Your task to perform on an android device: Go to wifi settings Image 0: 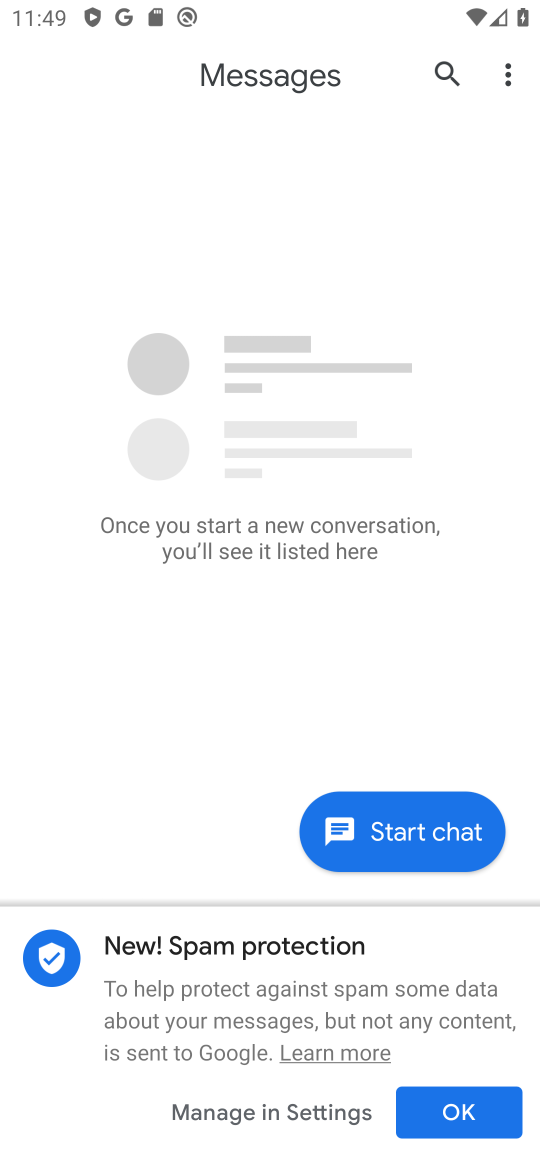
Step 0: press home button
Your task to perform on an android device: Go to wifi settings Image 1: 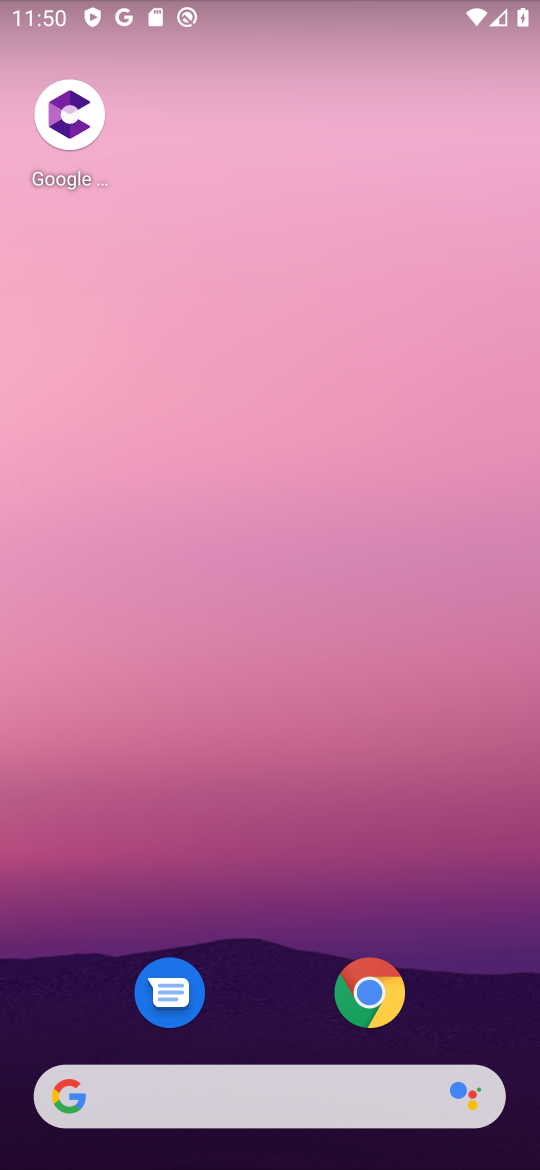
Step 1: drag from (282, 1014) to (187, 9)
Your task to perform on an android device: Go to wifi settings Image 2: 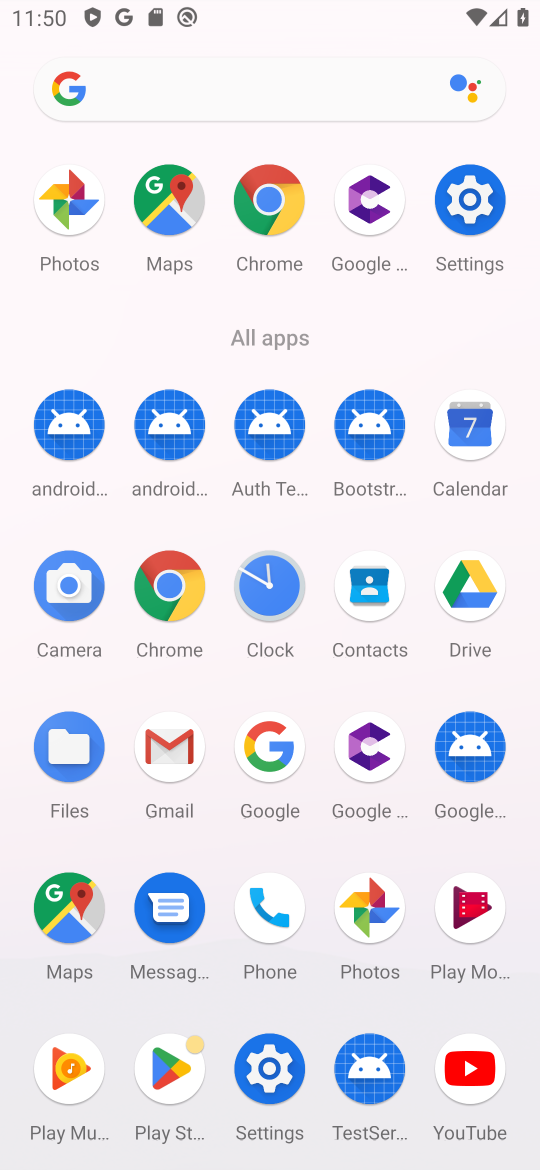
Step 2: click (481, 213)
Your task to perform on an android device: Go to wifi settings Image 3: 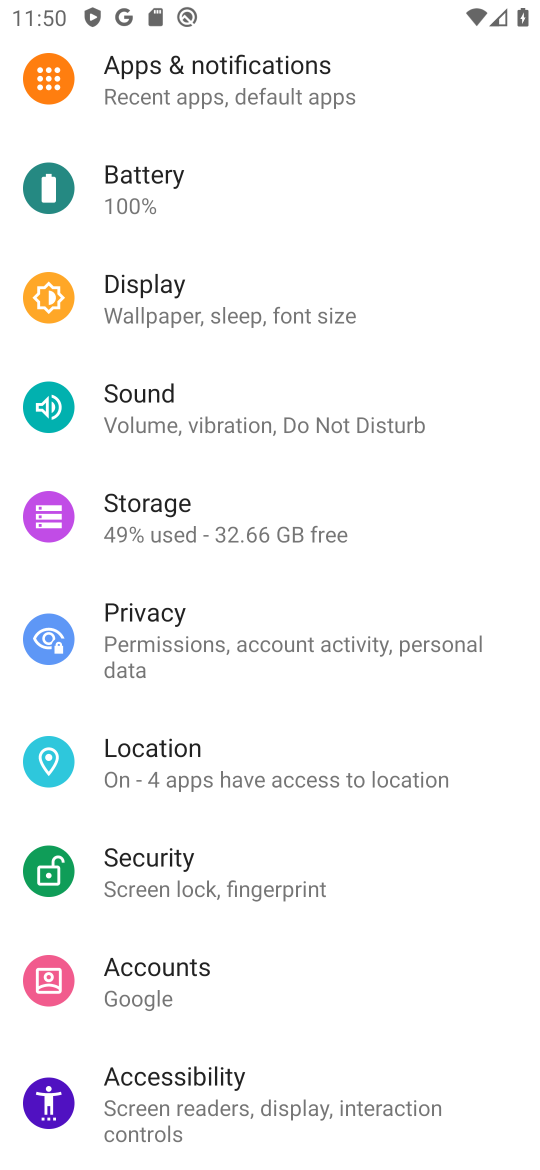
Step 3: drag from (272, 325) to (329, 900)
Your task to perform on an android device: Go to wifi settings Image 4: 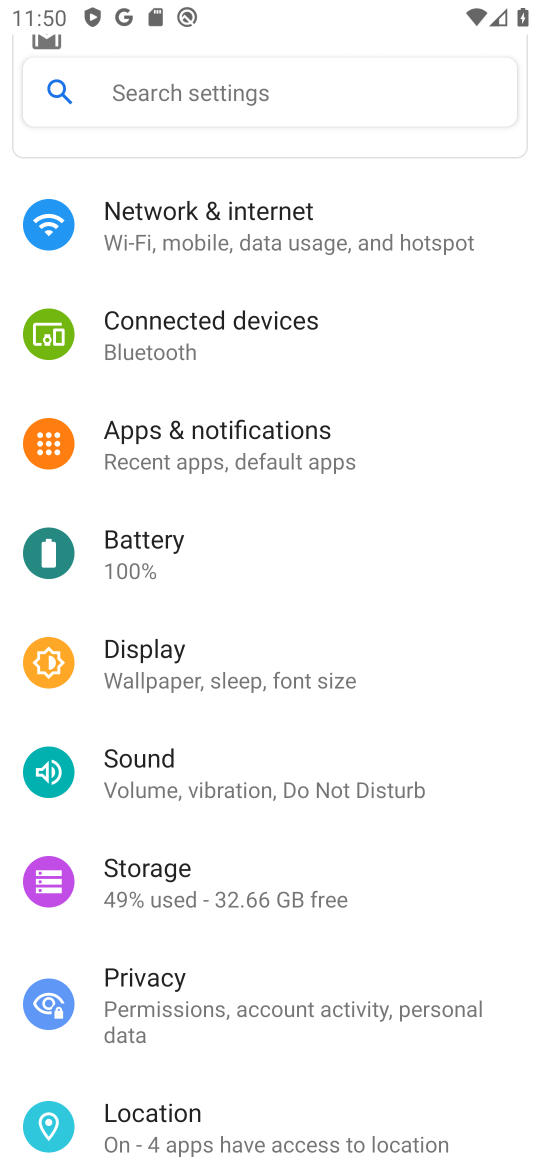
Step 4: drag from (193, 347) to (223, 913)
Your task to perform on an android device: Go to wifi settings Image 5: 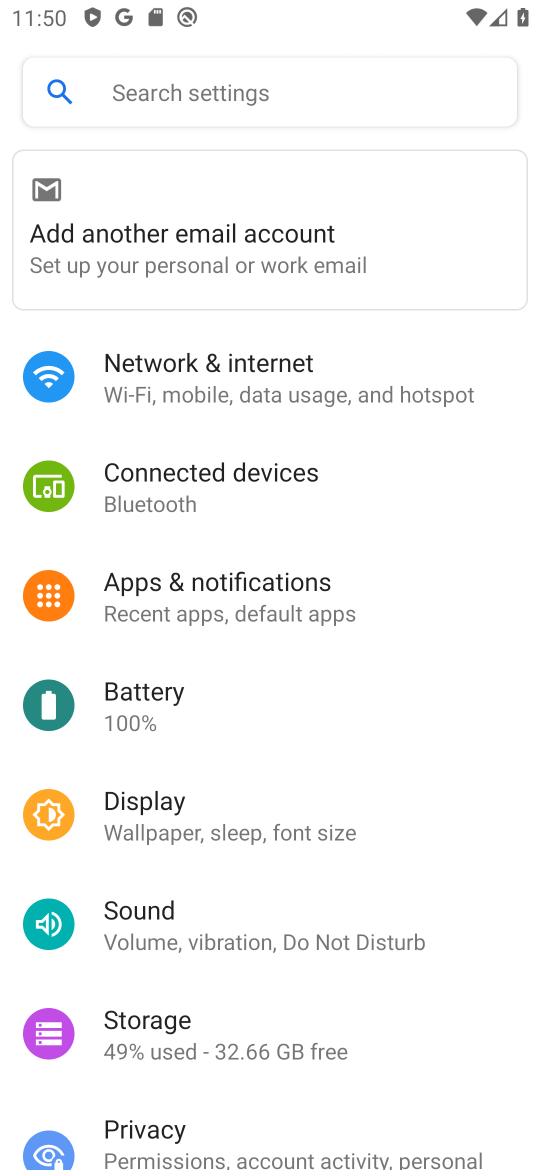
Step 5: click (118, 379)
Your task to perform on an android device: Go to wifi settings Image 6: 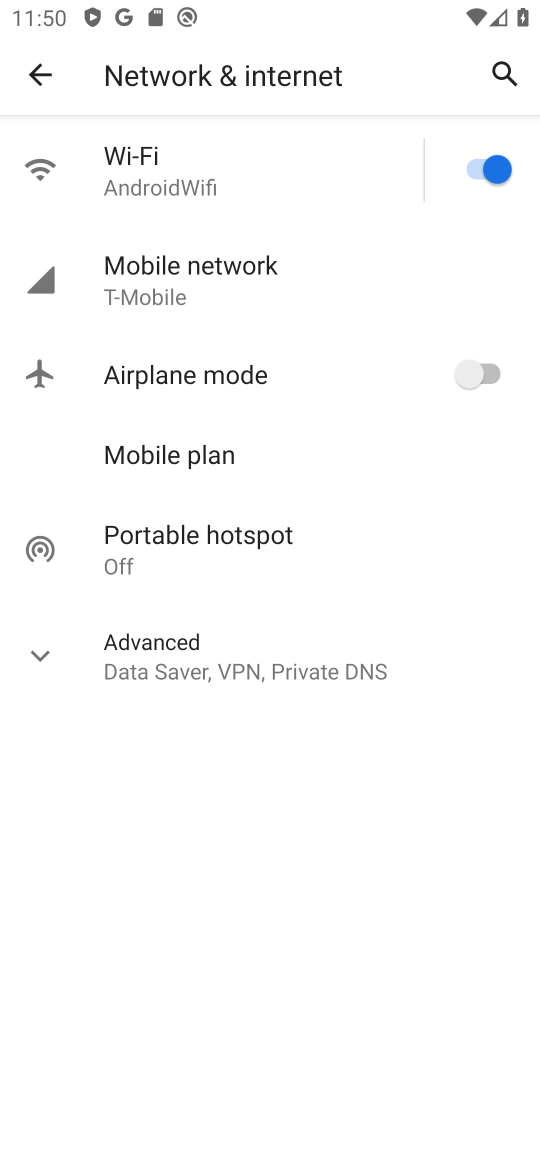
Step 6: click (206, 167)
Your task to perform on an android device: Go to wifi settings Image 7: 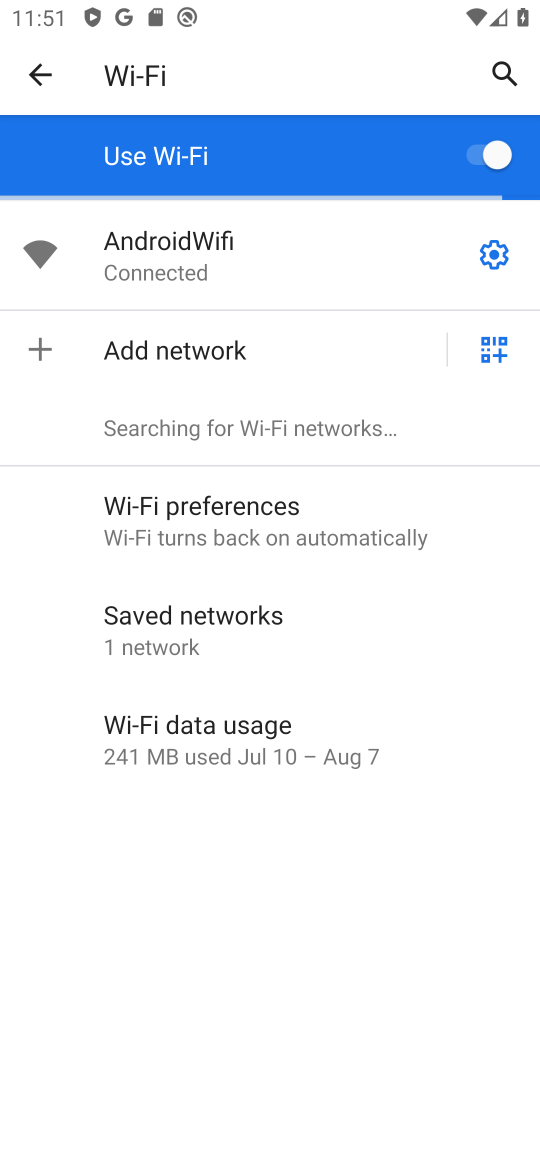
Step 7: task complete